Your task to perform on an android device: turn pop-ups off in chrome Image 0: 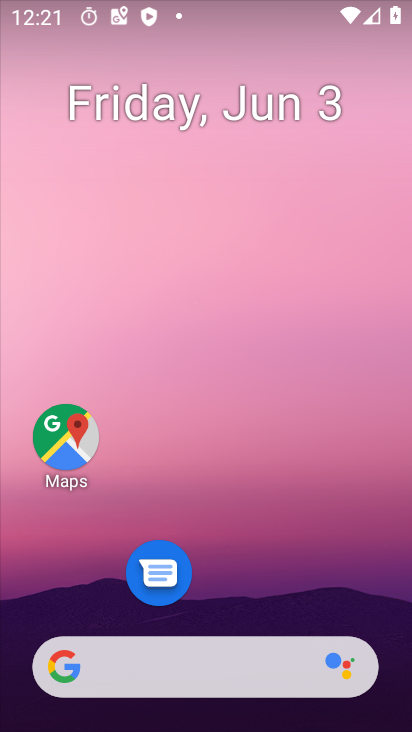
Step 0: drag from (282, 637) to (351, 51)
Your task to perform on an android device: turn pop-ups off in chrome Image 1: 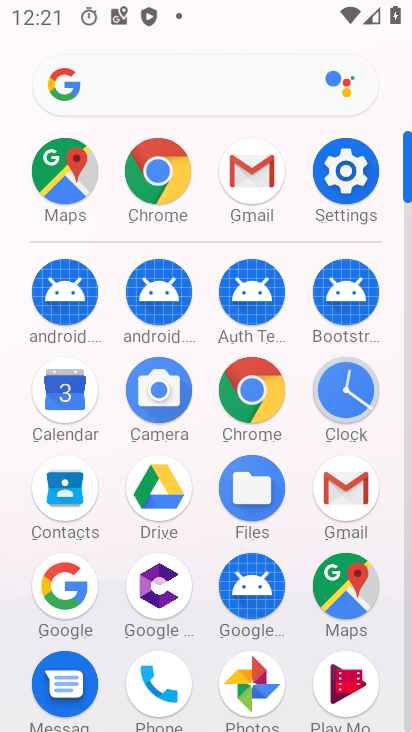
Step 1: click (258, 364)
Your task to perform on an android device: turn pop-ups off in chrome Image 2: 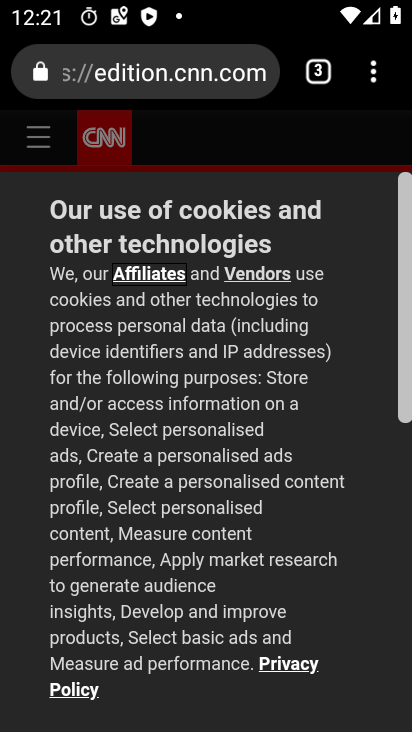
Step 2: click (370, 81)
Your task to perform on an android device: turn pop-ups off in chrome Image 3: 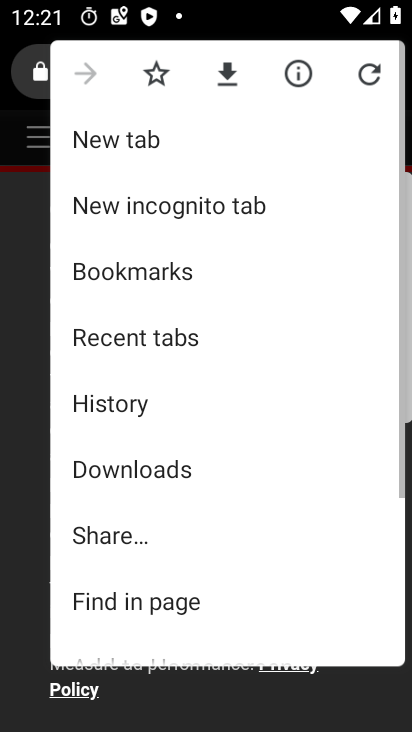
Step 3: drag from (156, 590) to (190, 220)
Your task to perform on an android device: turn pop-ups off in chrome Image 4: 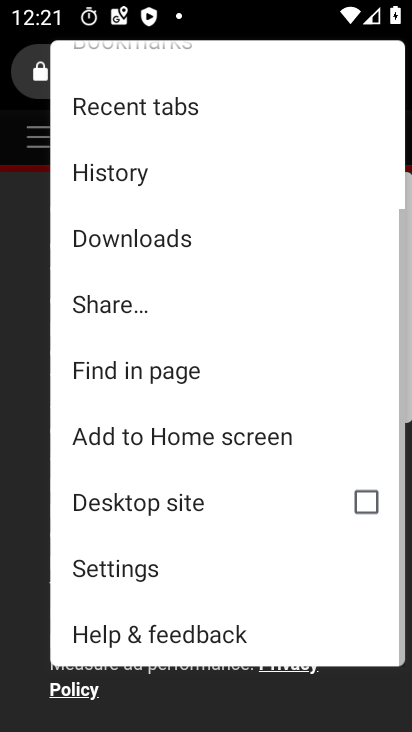
Step 4: click (215, 564)
Your task to perform on an android device: turn pop-ups off in chrome Image 5: 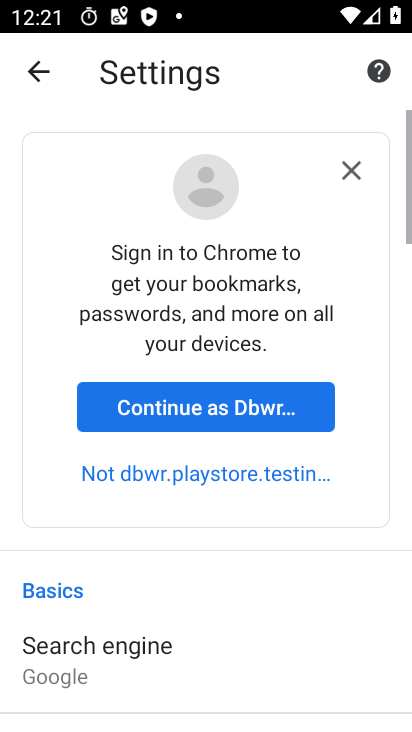
Step 5: drag from (266, 653) to (184, 90)
Your task to perform on an android device: turn pop-ups off in chrome Image 6: 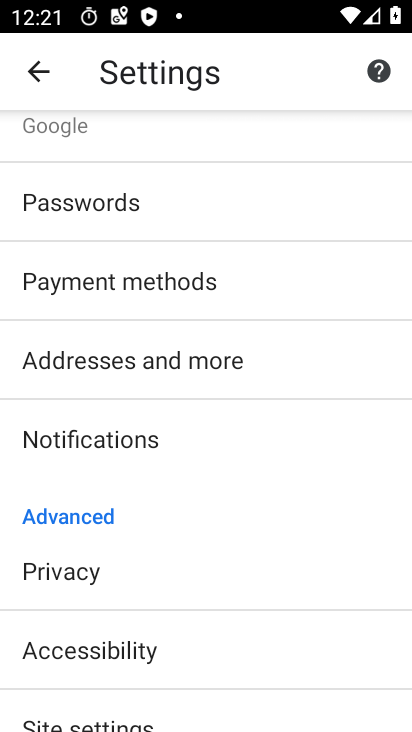
Step 6: drag from (152, 638) to (173, 277)
Your task to perform on an android device: turn pop-ups off in chrome Image 7: 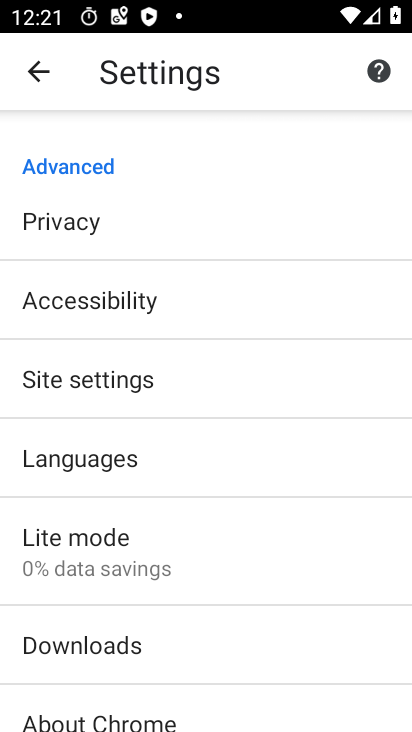
Step 7: click (163, 385)
Your task to perform on an android device: turn pop-ups off in chrome Image 8: 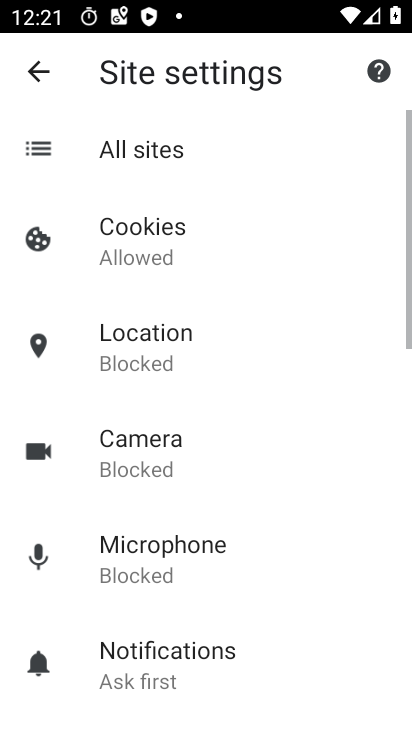
Step 8: drag from (196, 647) to (255, 312)
Your task to perform on an android device: turn pop-ups off in chrome Image 9: 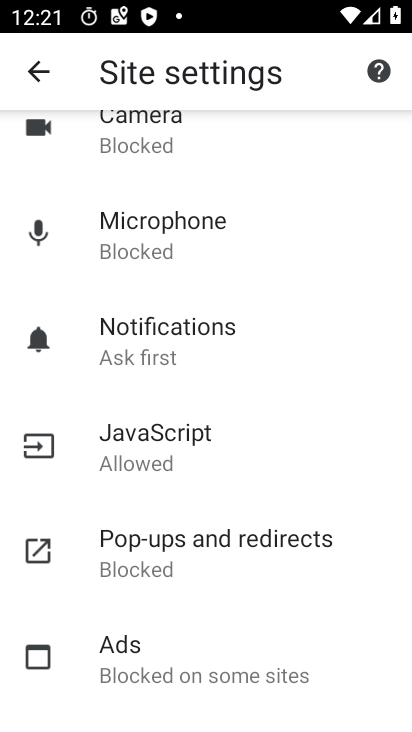
Step 9: click (273, 288)
Your task to perform on an android device: turn pop-ups off in chrome Image 10: 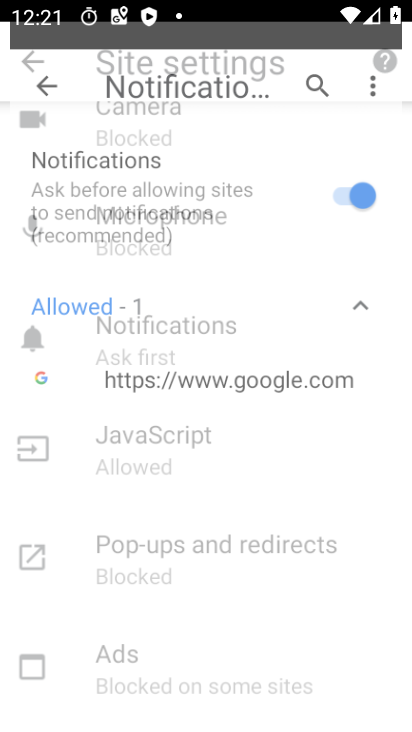
Step 10: click (217, 555)
Your task to perform on an android device: turn pop-ups off in chrome Image 11: 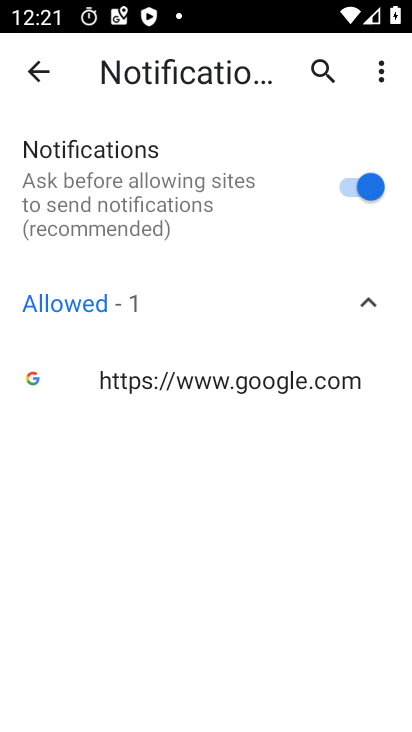
Step 11: press back button
Your task to perform on an android device: turn pop-ups off in chrome Image 12: 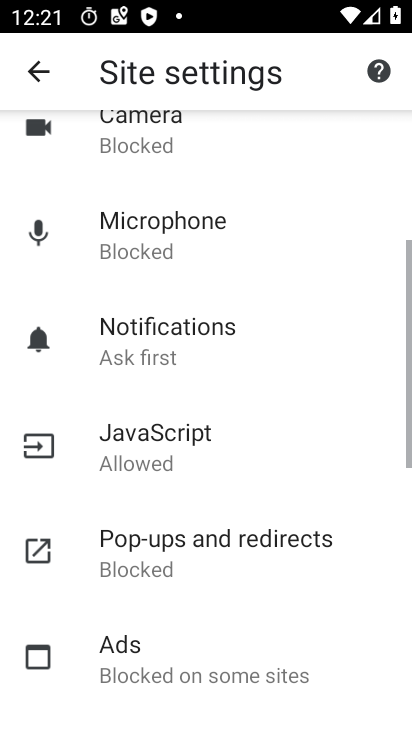
Step 12: click (205, 548)
Your task to perform on an android device: turn pop-ups off in chrome Image 13: 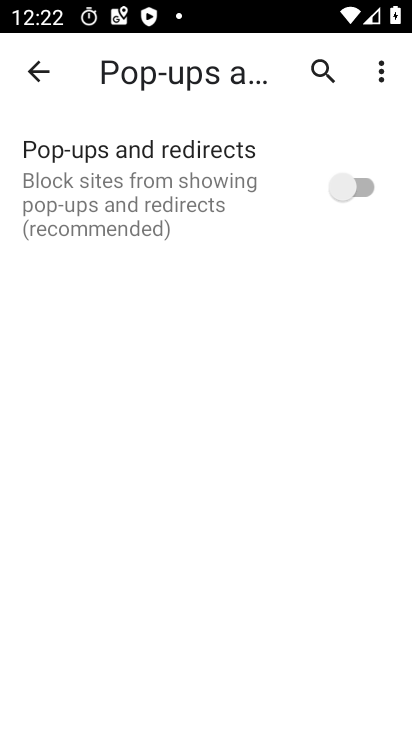
Step 13: task complete